Your task to perform on an android device: set an alarm Image 0: 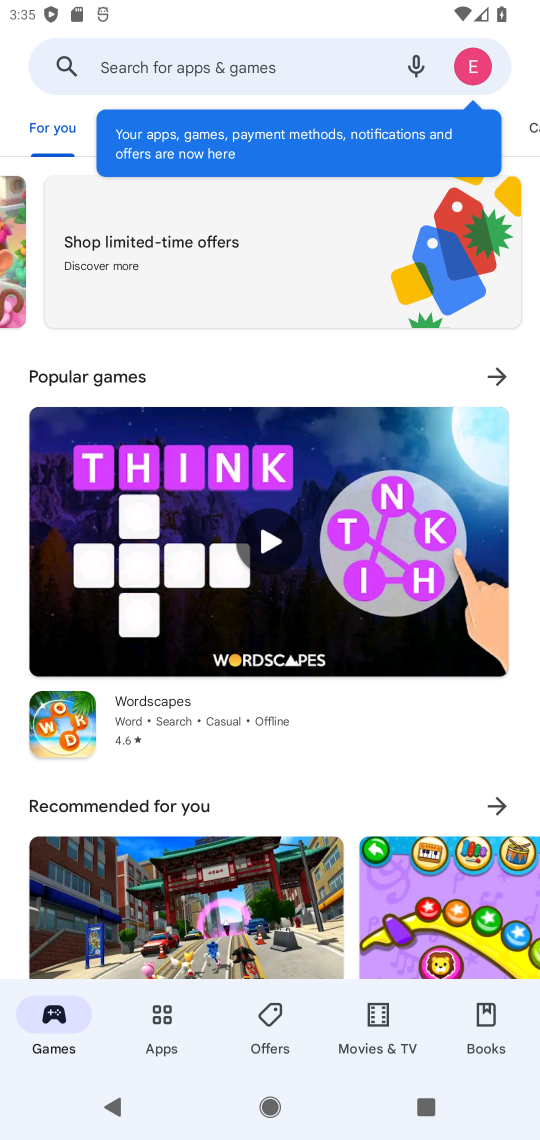
Step 0: press home button
Your task to perform on an android device: set an alarm Image 1: 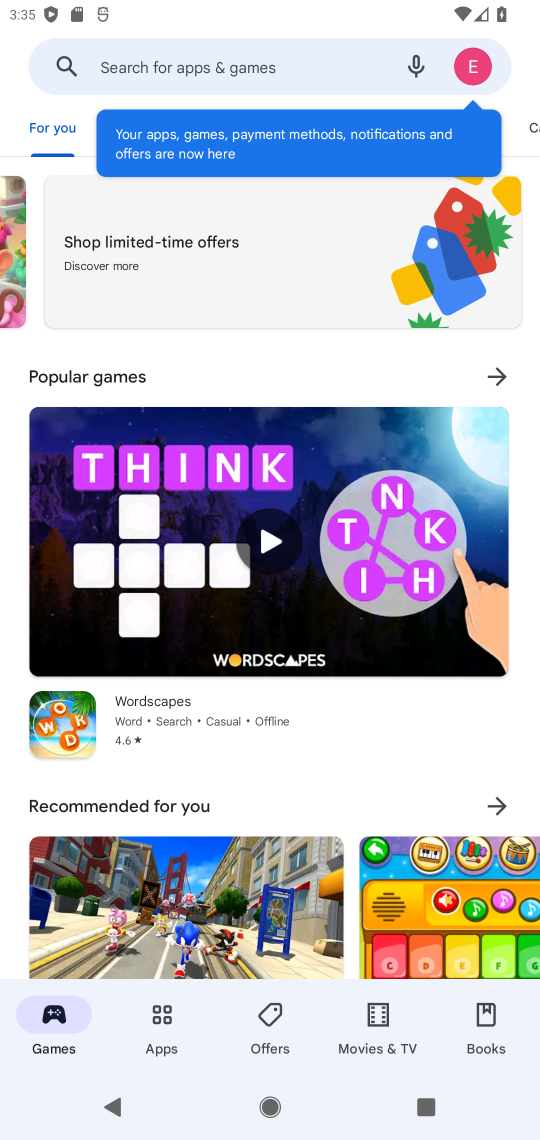
Step 1: press home button
Your task to perform on an android device: set an alarm Image 2: 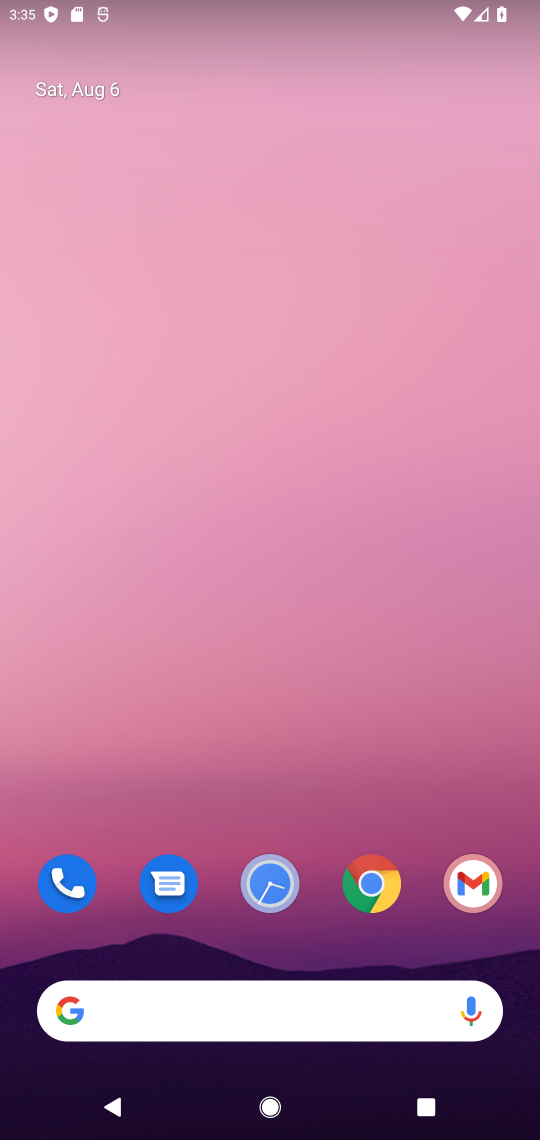
Step 2: drag from (230, 1033) to (357, 0)
Your task to perform on an android device: set an alarm Image 3: 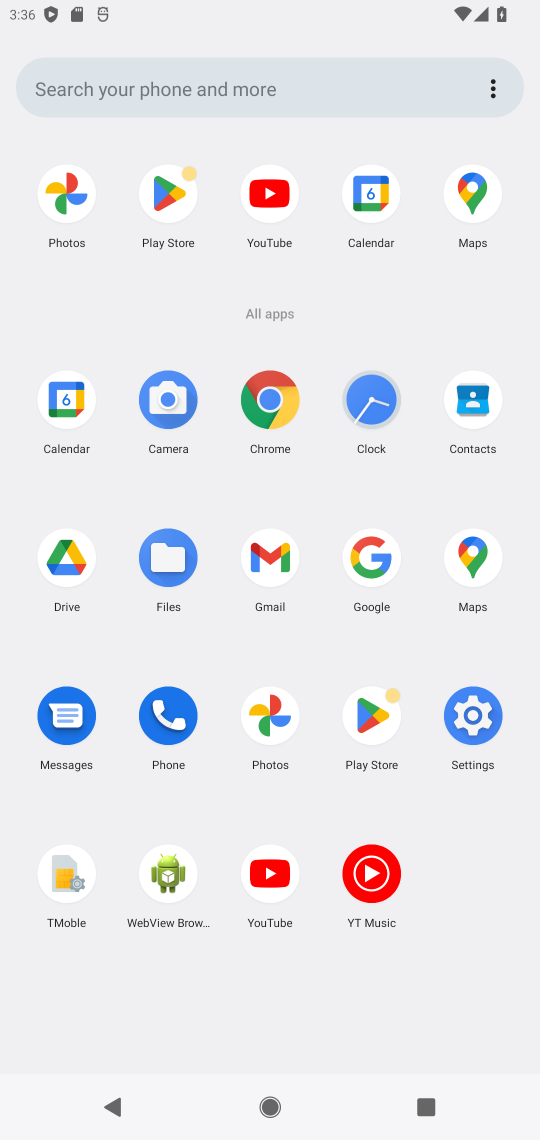
Step 3: click (378, 422)
Your task to perform on an android device: set an alarm Image 4: 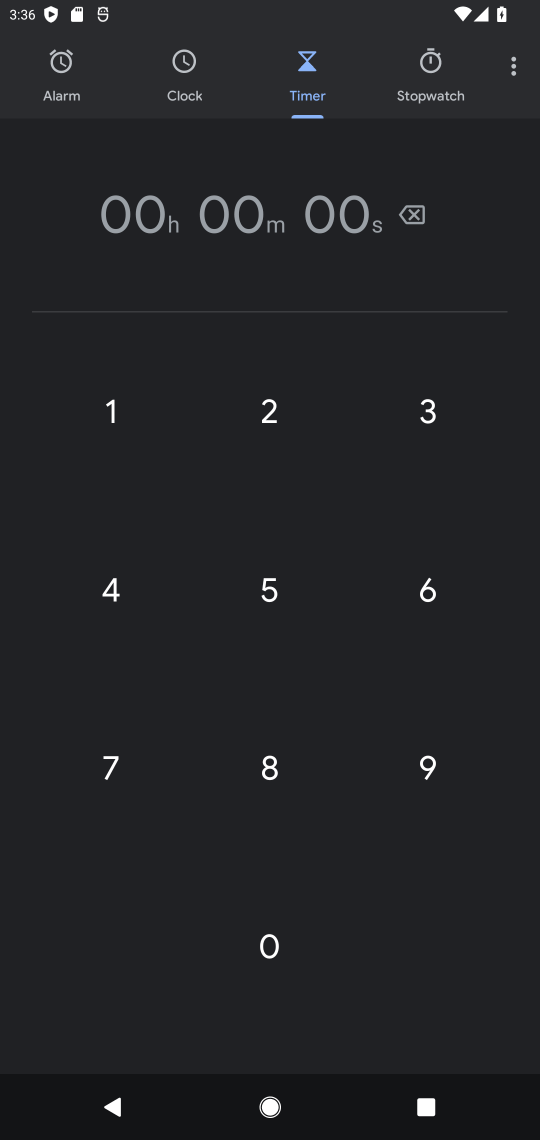
Step 4: click (76, 88)
Your task to perform on an android device: set an alarm Image 5: 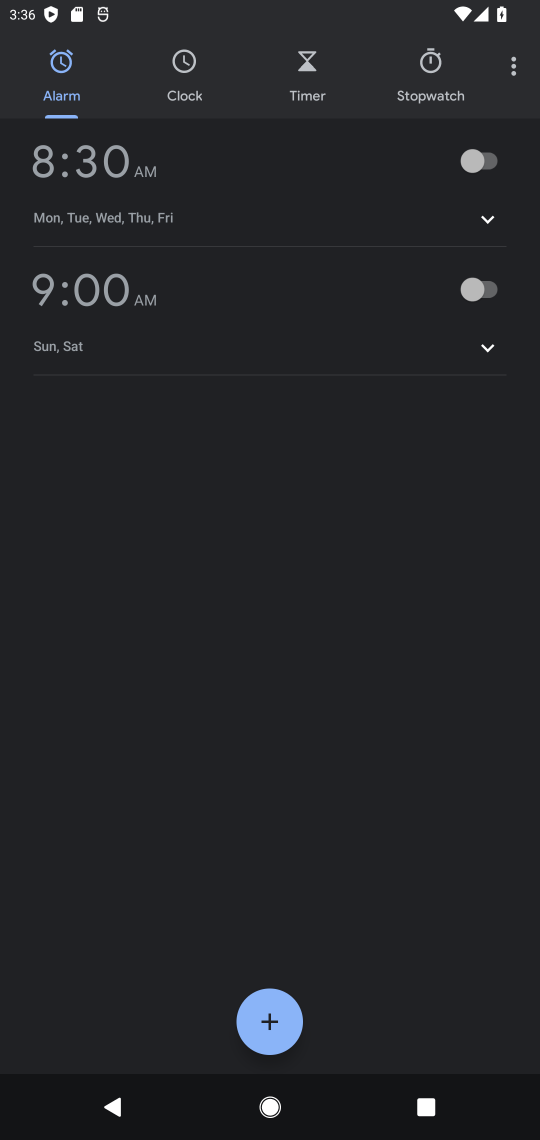
Step 5: click (282, 1004)
Your task to perform on an android device: set an alarm Image 6: 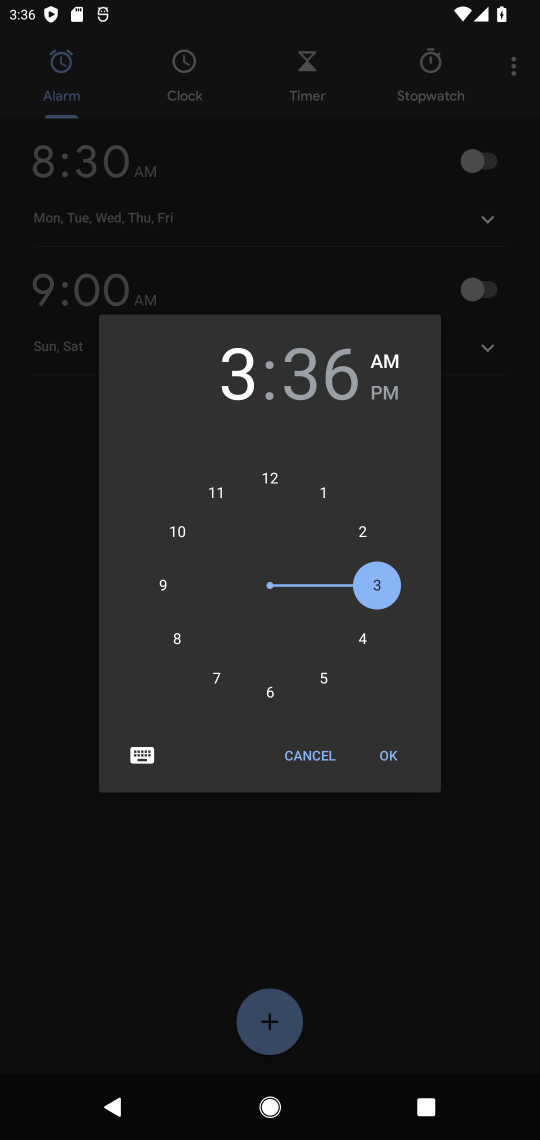
Step 6: click (383, 751)
Your task to perform on an android device: set an alarm Image 7: 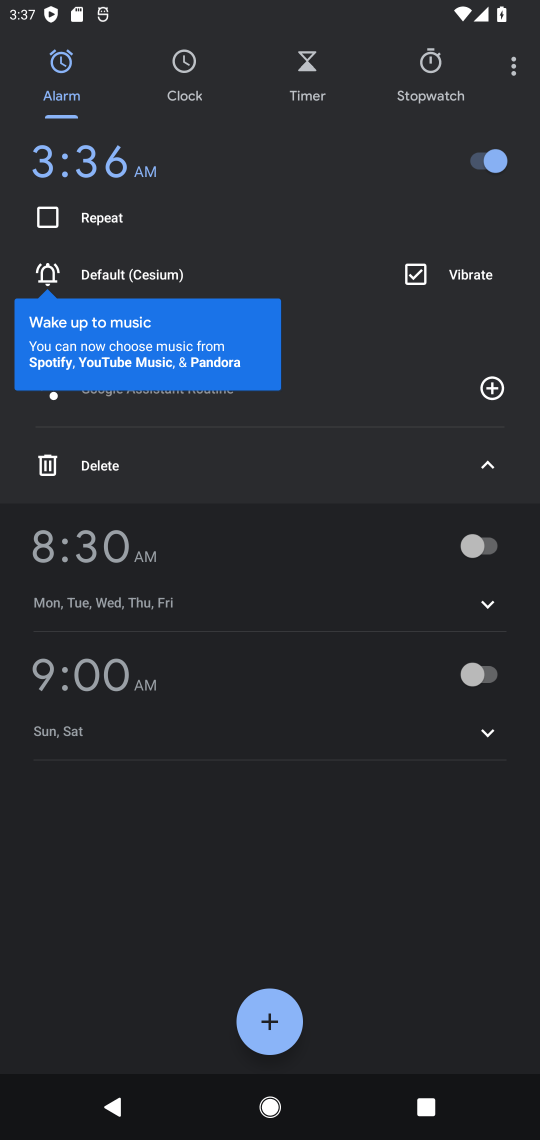
Step 7: task complete